Your task to perform on an android device: see sites visited before in the chrome app Image 0: 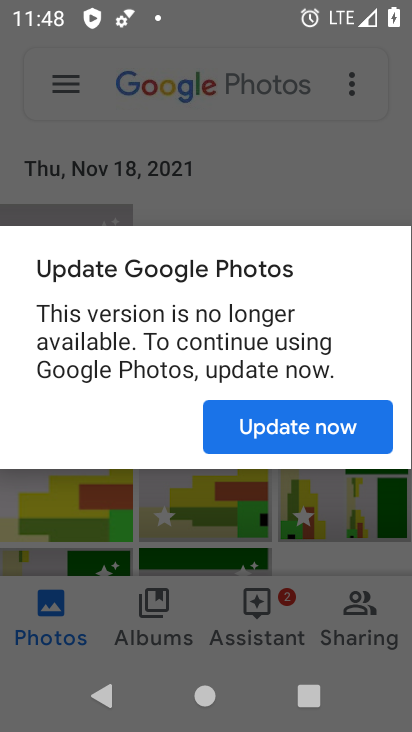
Step 0: press home button
Your task to perform on an android device: see sites visited before in the chrome app Image 1: 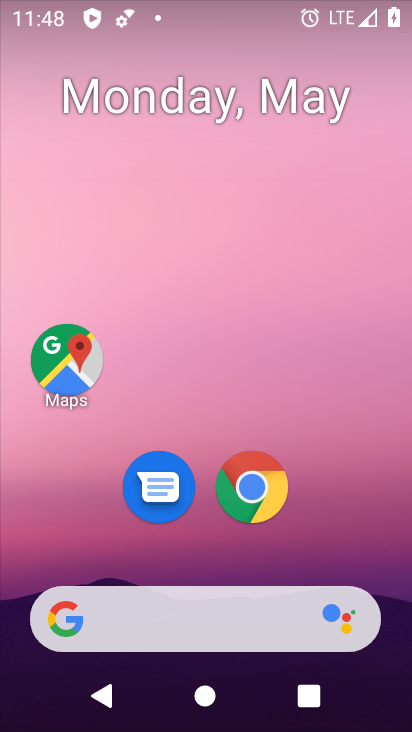
Step 1: click (247, 470)
Your task to perform on an android device: see sites visited before in the chrome app Image 2: 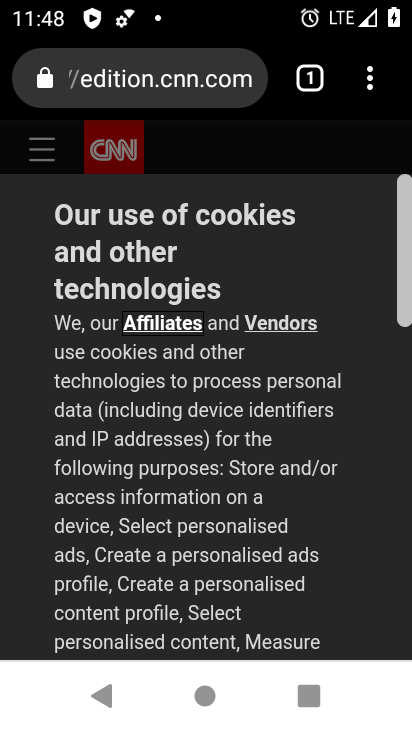
Step 2: click (379, 78)
Your task to perform on an android device: see sites visited before in the chrome app Image 3: 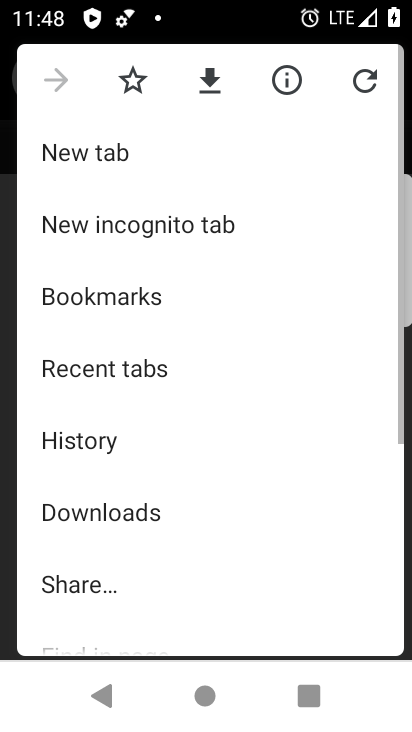
Step 3: click (86, 447)
Your task to perform on an android device: see sites visited before in the chrome app Image 4: 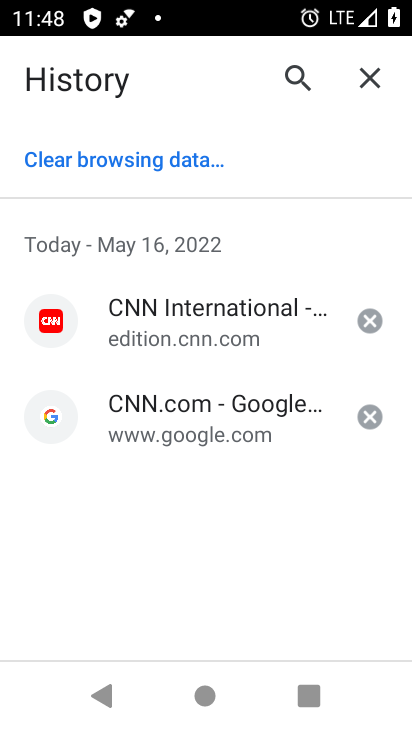
Step 4: task complete